Your task to perform on an android device: turn off improve location accuracy Image 0: 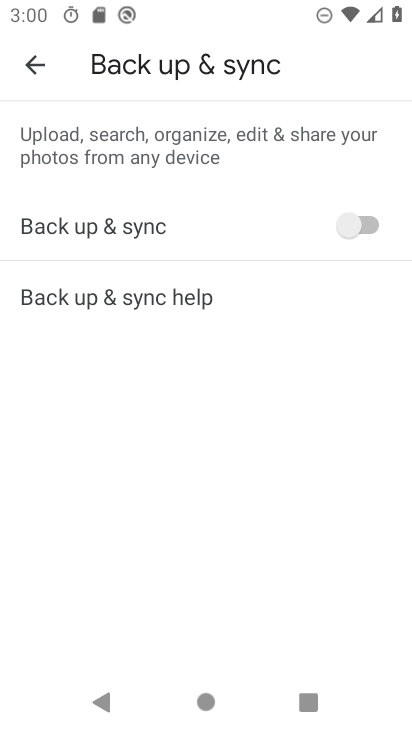
Step 0: press home button
Your task to perform on an android device: turn off improve location accuracy Image 1: 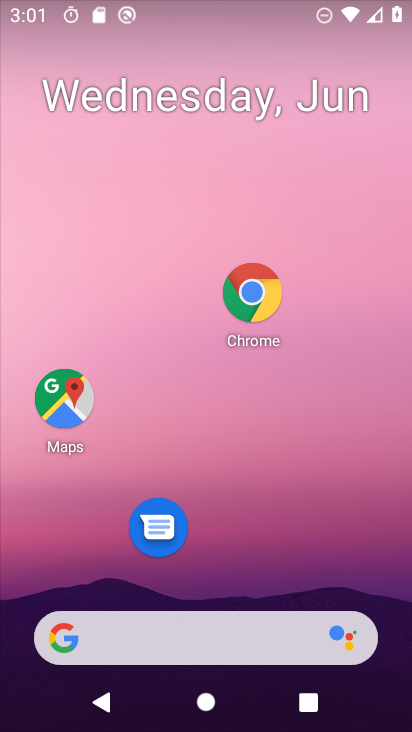
Step 1: drag from (178, 400) to (173, 164)
Your task to perform on an android device: turn off improve location accuracy Image 2: 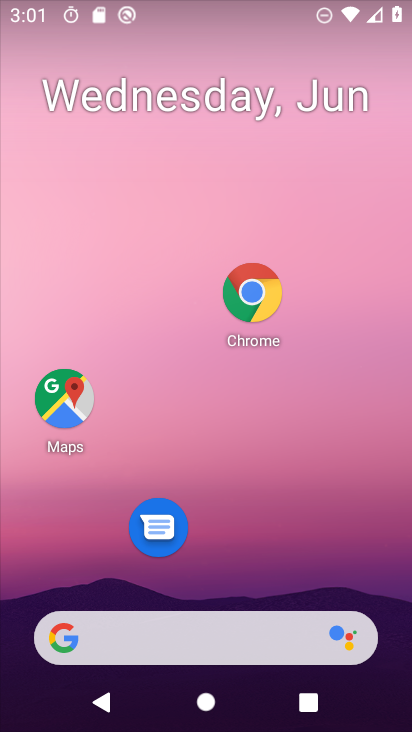
Step 2: drag from (213, 676) to (223, 146)
Your task to perform on an android device: turn off improve location accuracy Image 3: 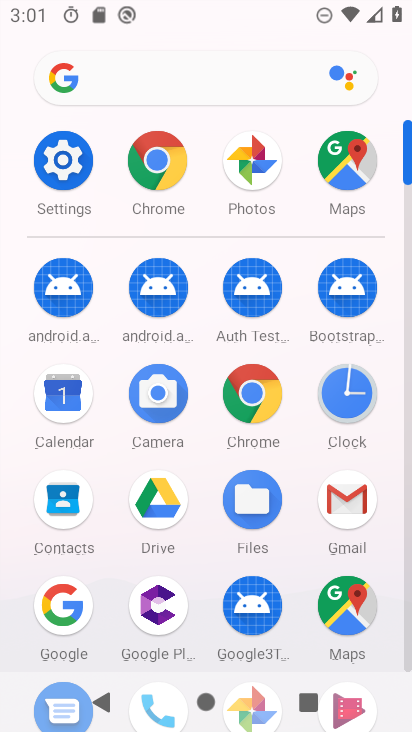
Step 3: click (63, 186)
Your task to perform on an android device: turn off improve location accuracy Image 4: 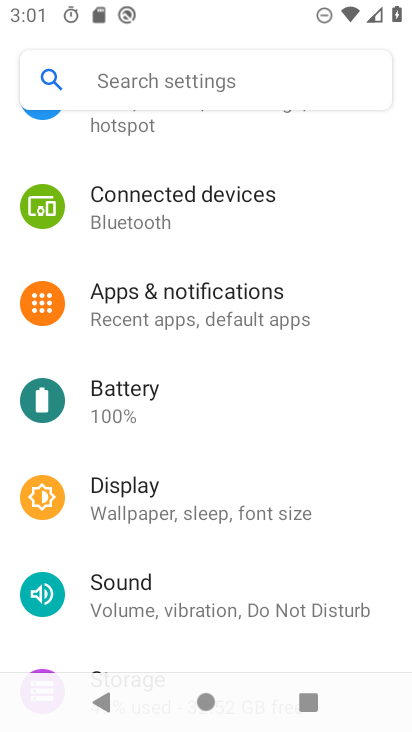
Step 4: drag from (214, 508) to (214, 175)
Your task to perform on an android device: turn off improve location accuracy Image 5: 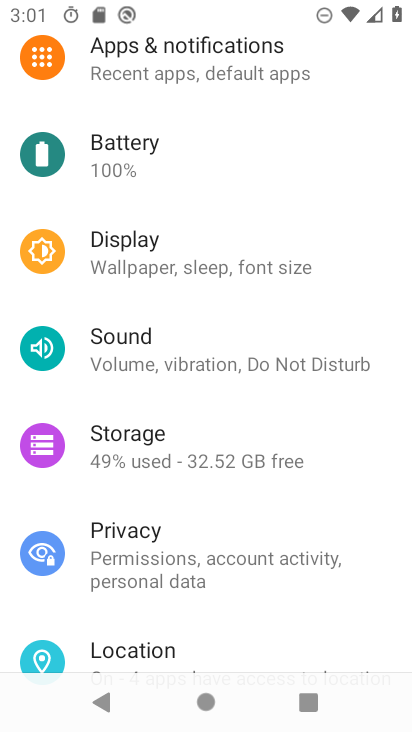
Step 5: click (195, 643)
Your task to perform on an android device: turn off improve location accuracy Image 6: 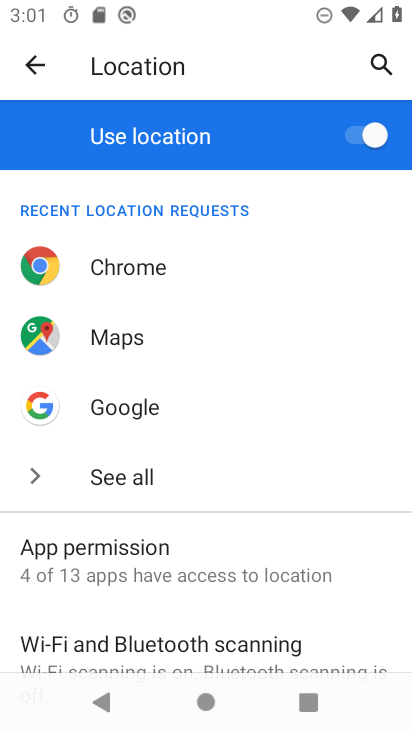
Step 6: drag from (193, 560) to (142, 49)
Your task to perform on an android device: turn off improve location accuracy Image 7: 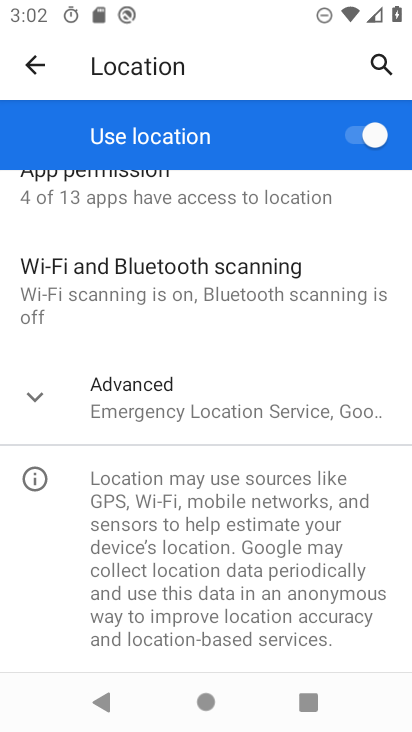
Step 7: click (223, 404)
Your task to perform on an android device: turn off improve location accuracy Image 8: 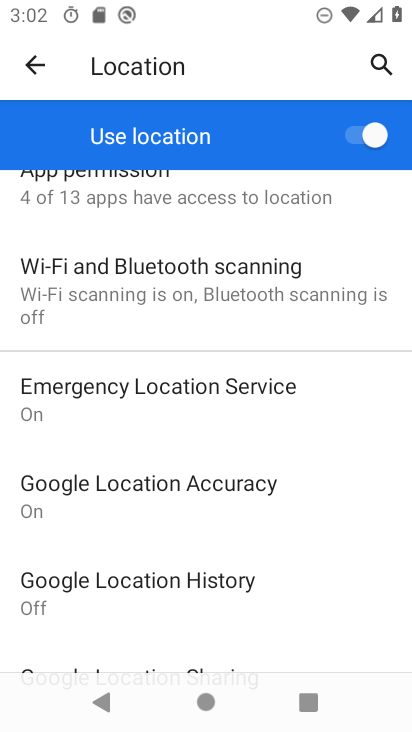
Step 8: click (260, 471)
Your task to perform on an android device: turn off improve location accuracy Image 9: 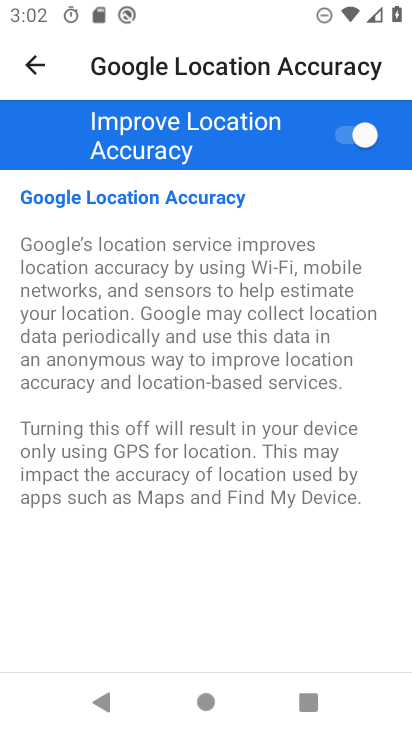
Step 9: click (349, 129)
Your task to perform on an android device: turn off improve location accuracy Image 10: 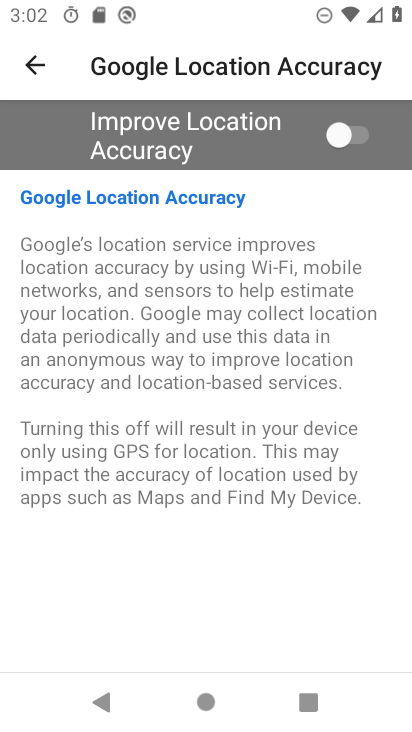
Step 10: task complete